Your task to perform on an android device: Find coffee shops on Maps Image 0: 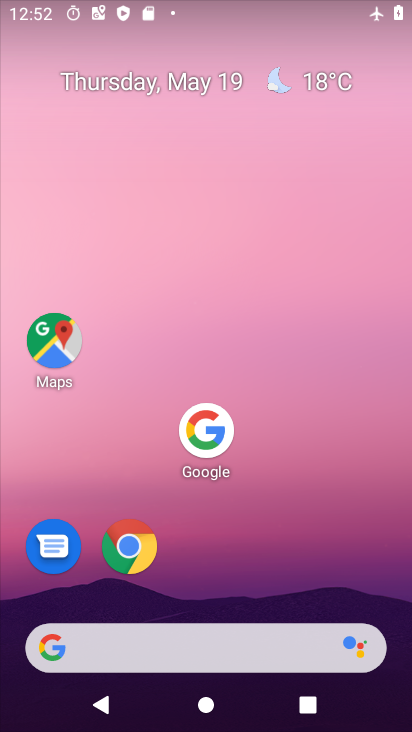
Step 0: click (55, 350)
Your task to perform on an android device: Find coffee shops on Maps Image 1: 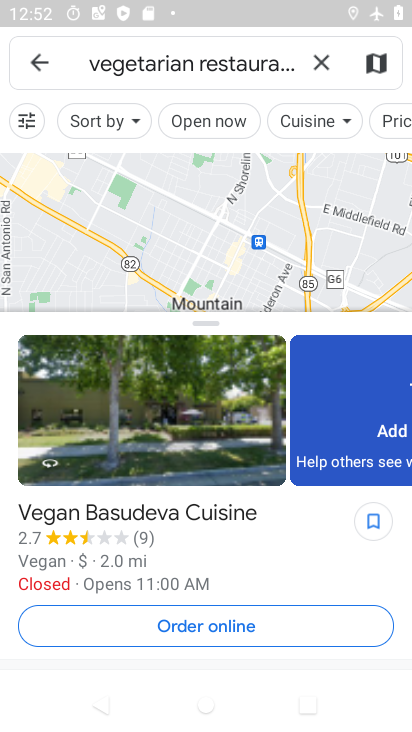
Step 1: click (317, 64)
Your task to perform on an android device: Find coffee shops on Maps Image 2: 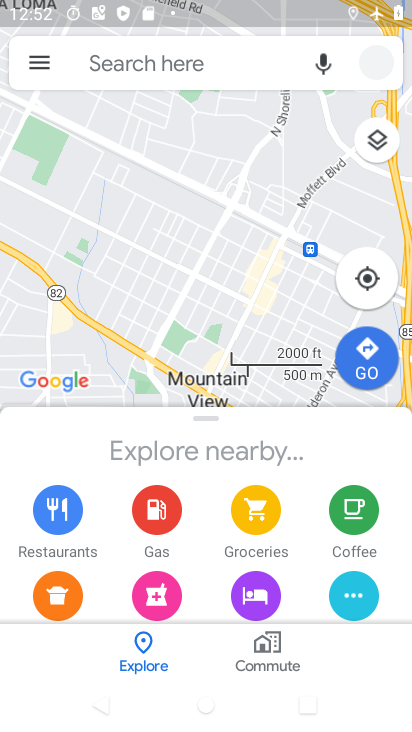
Step 2: click (164, 61)
Your task to perform on an android device: Find coffee shops on Maps Image 3: 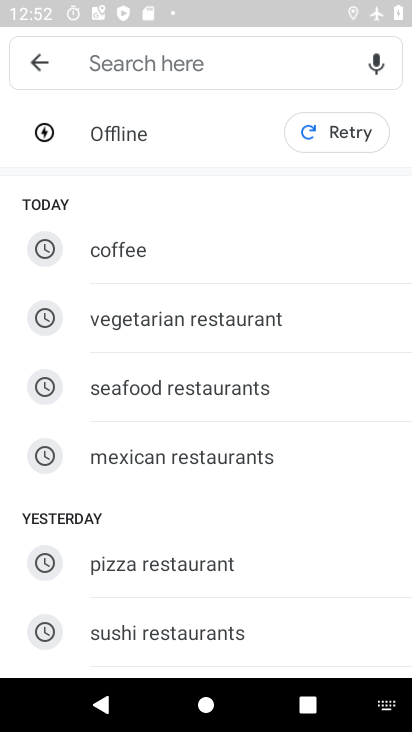
Step 3: click (174, 263)
Your task to perform on an android device: Find coffee shops on Maps Image 4: 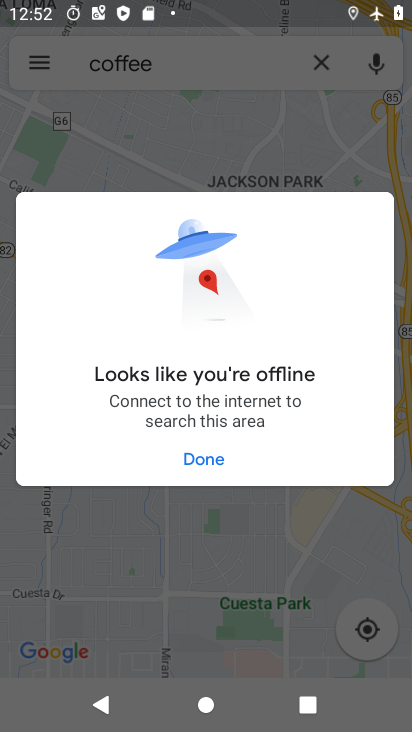
Step 4: task complete